Your task to perform on an android device: Open my contact list Image 0: 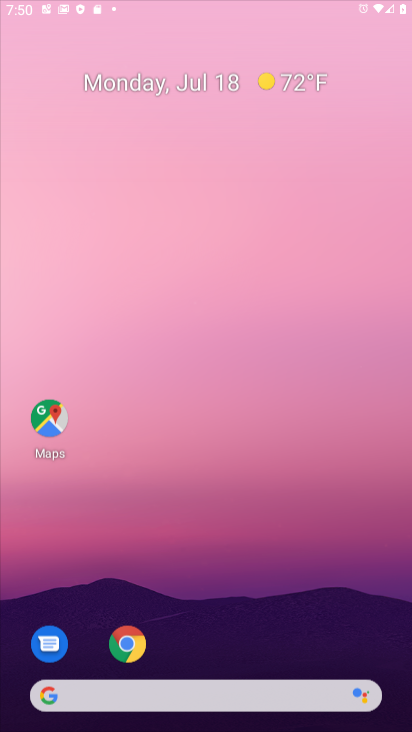
Step 0: drag from (381, 680) to (301, 108)
Your task to perform on an android device: Open my contact list Image 1: 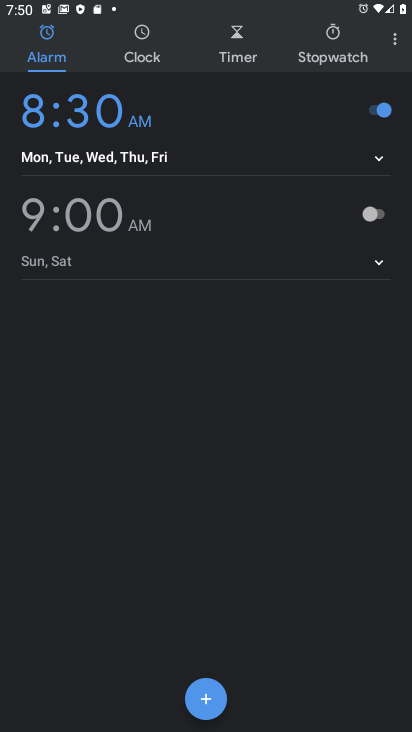
Step 1: press home button
Your task to perform on an android device: Open my contact list Image 2: 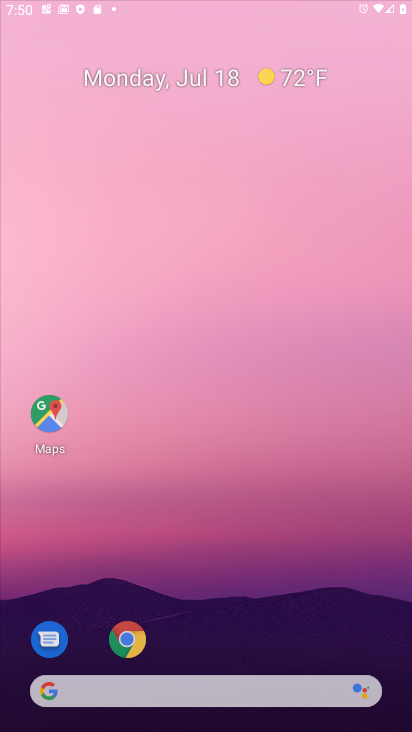
Step 2: drag from (369, 685) to (288, 97)
Your task to perform on an android device: Open my contact list Image 3: 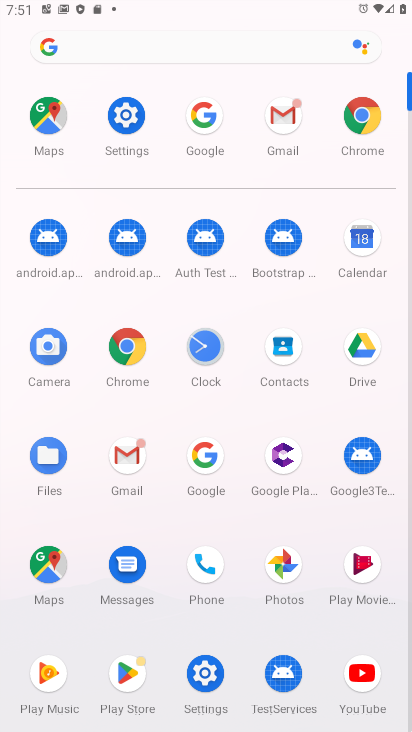
Step 3: click (264, 361)
Your task to perform on an android device: Open my contact list Image 4: 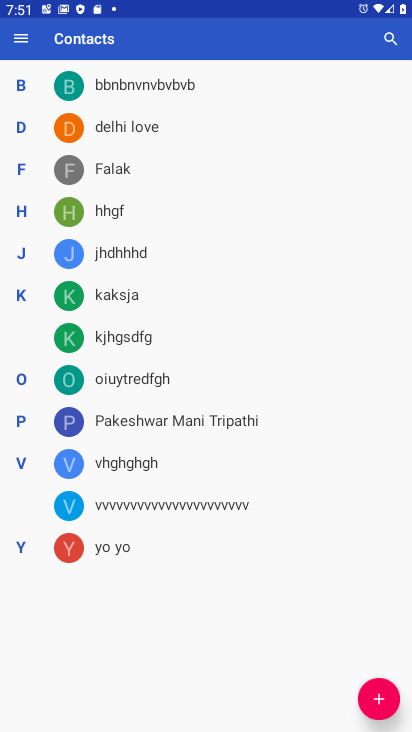
Step 4: task complete